Your task to perform on an android device: Add usb-c to the cart on amazon.com, then select checkout. Image 0: 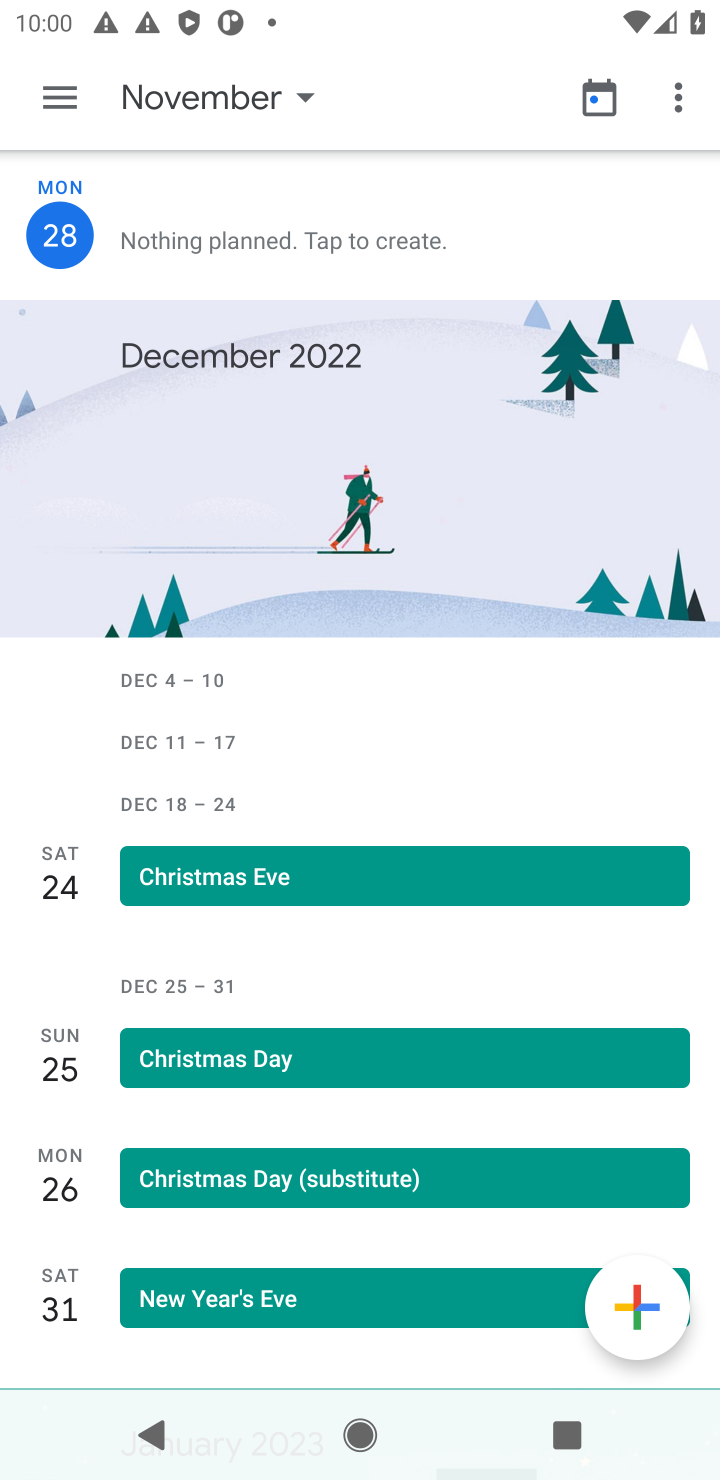
Step 0: press home button
Your task to perform on an android device: Add usb-c to the cart on amazon.com, then select checkout. Image 1: 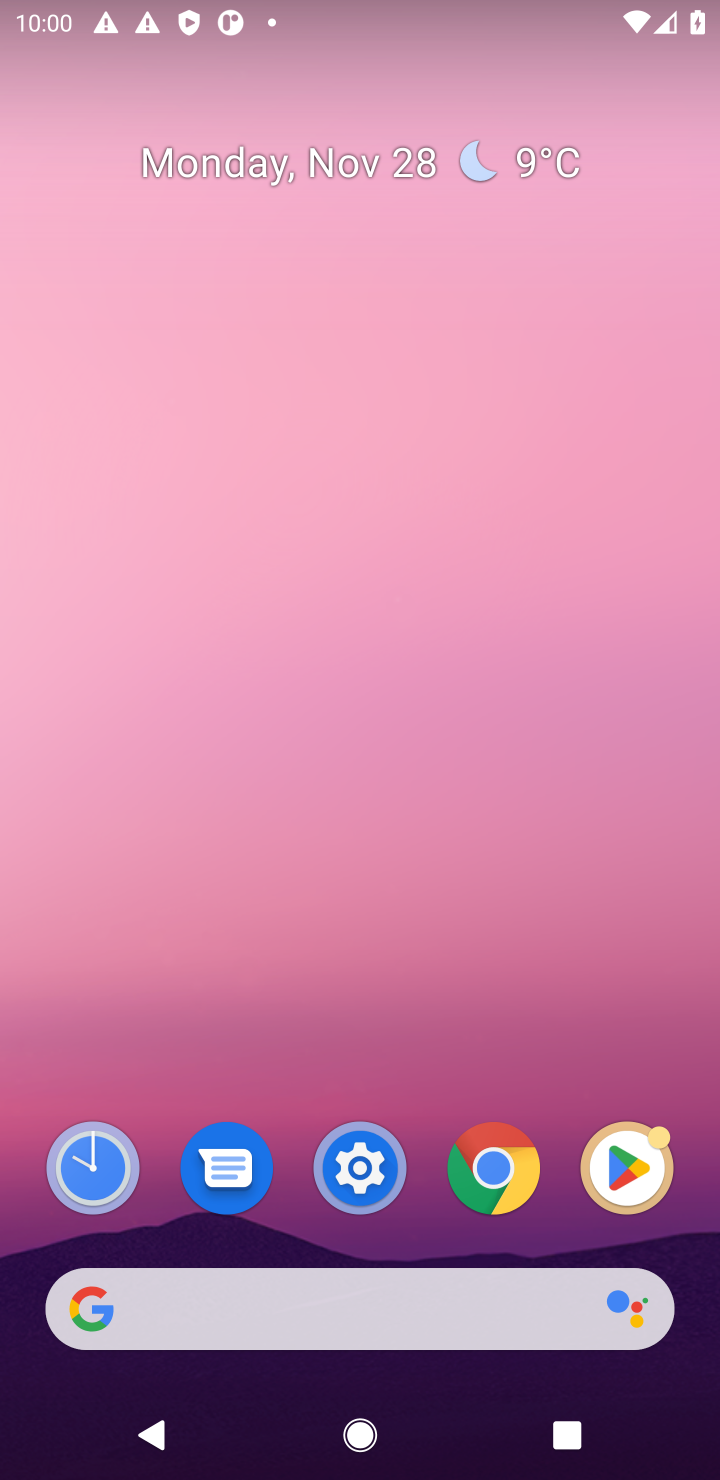
Step 1: click (276, 1288)
Your task to perform on an android device: Add usb-c to the cart on amazon.com, then select checkout. Image 2: 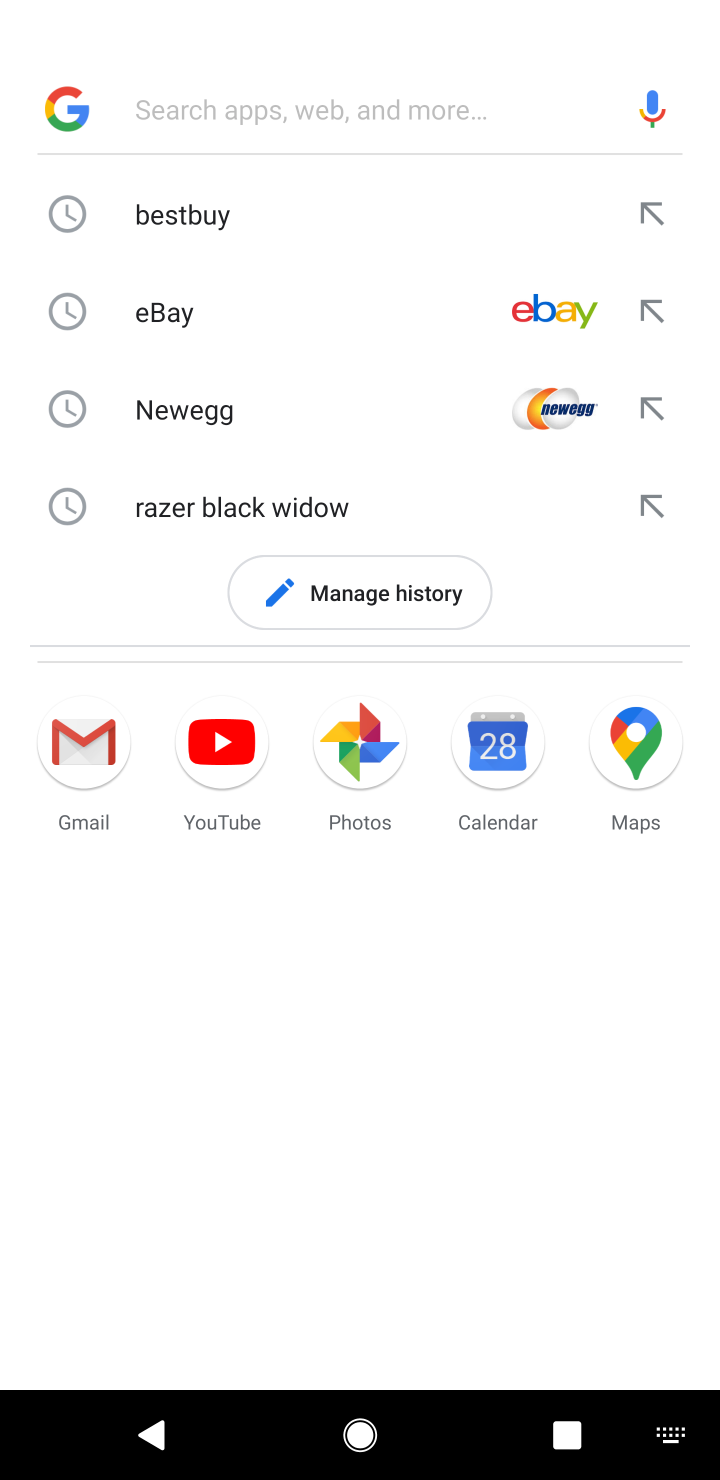
Step 2: type "amazon"
Your task to perform on an android device: Add usb-c to the cart on amazon.com, then select checkout. Image 3: 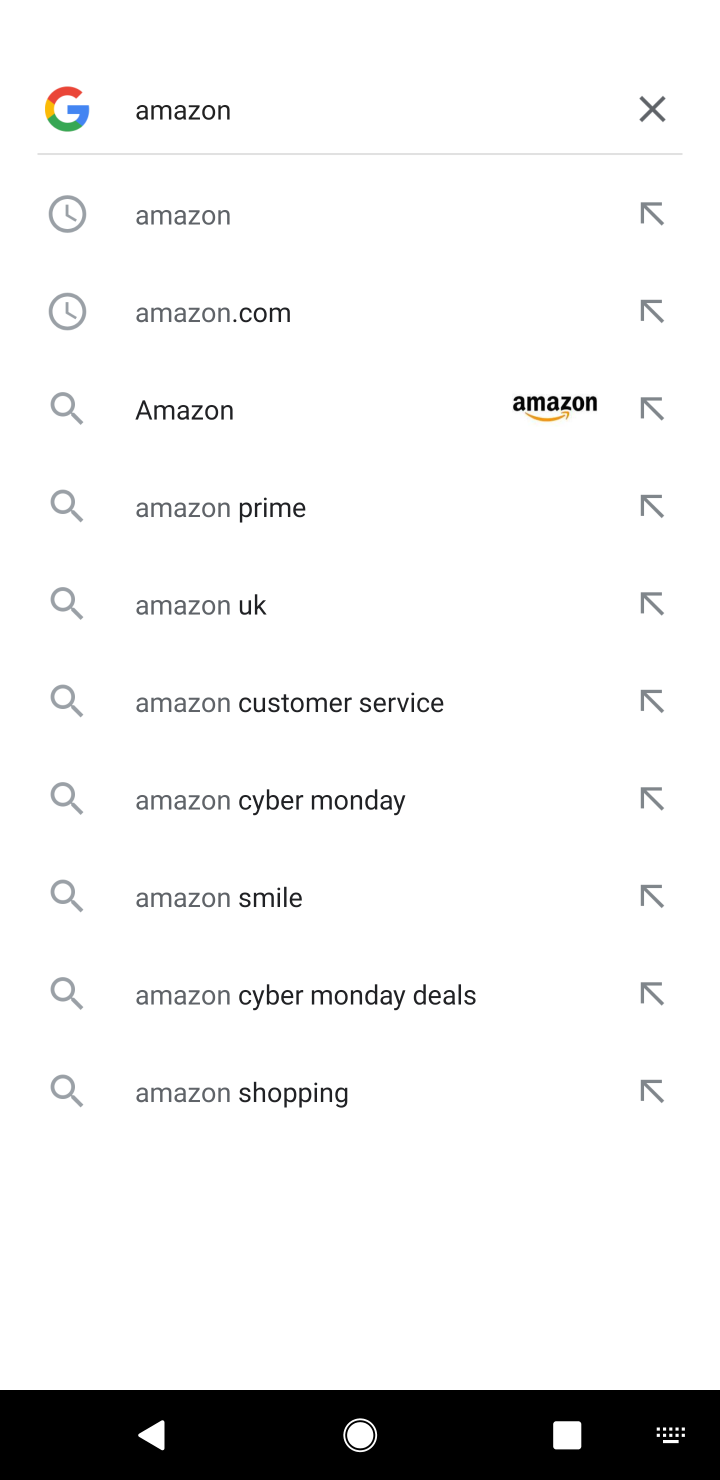
Step 3: click (165, 381)
Your task to perform on an android device: Add usb-c to the cart on amazon.com, then select checkout. Image 4: 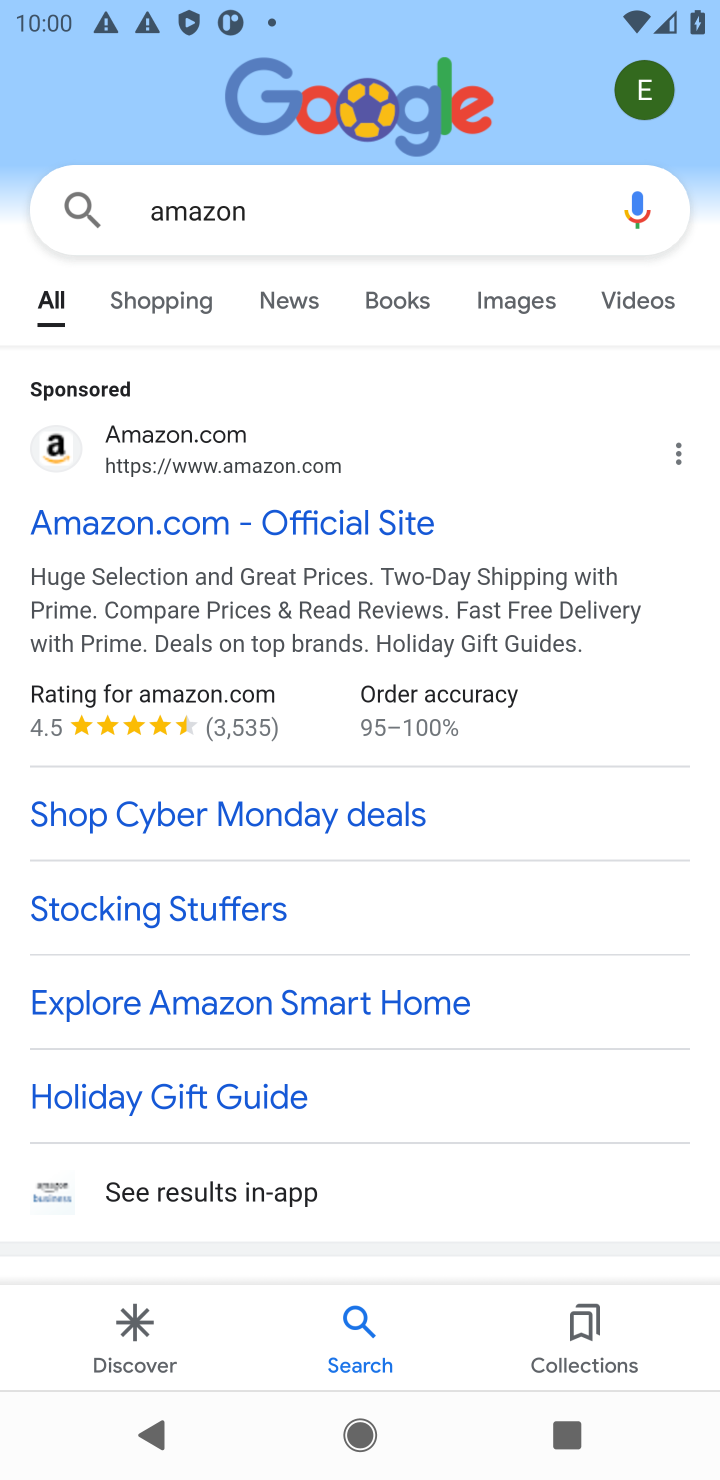
Step 4: click (63, 505)
Your task to perform on an android device: Add usb-c to the cart on amazon.com, then select checkout. Image 5: 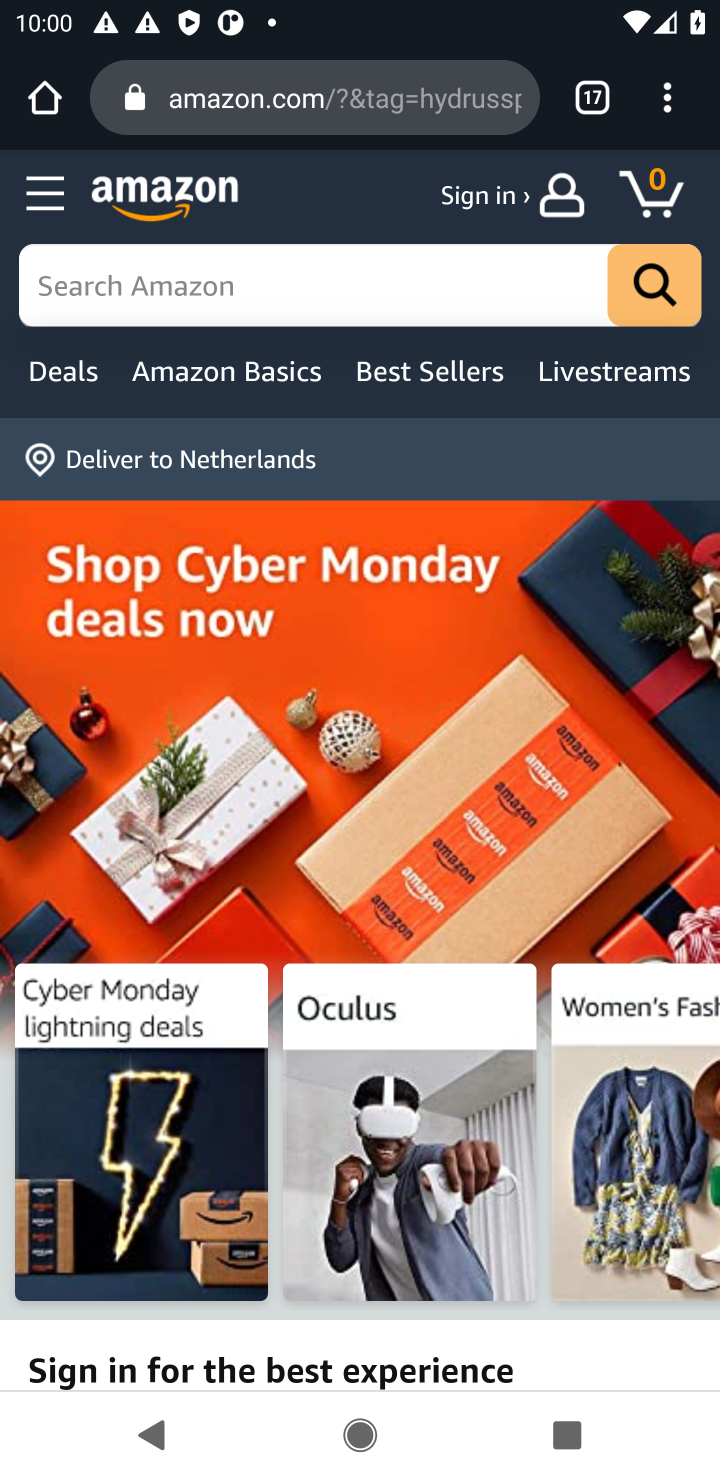
Step 5: click (239, 289)
Your task to perform on an android device: Add usb-c to the cart on amazon.com, then select checkout. Image 6: 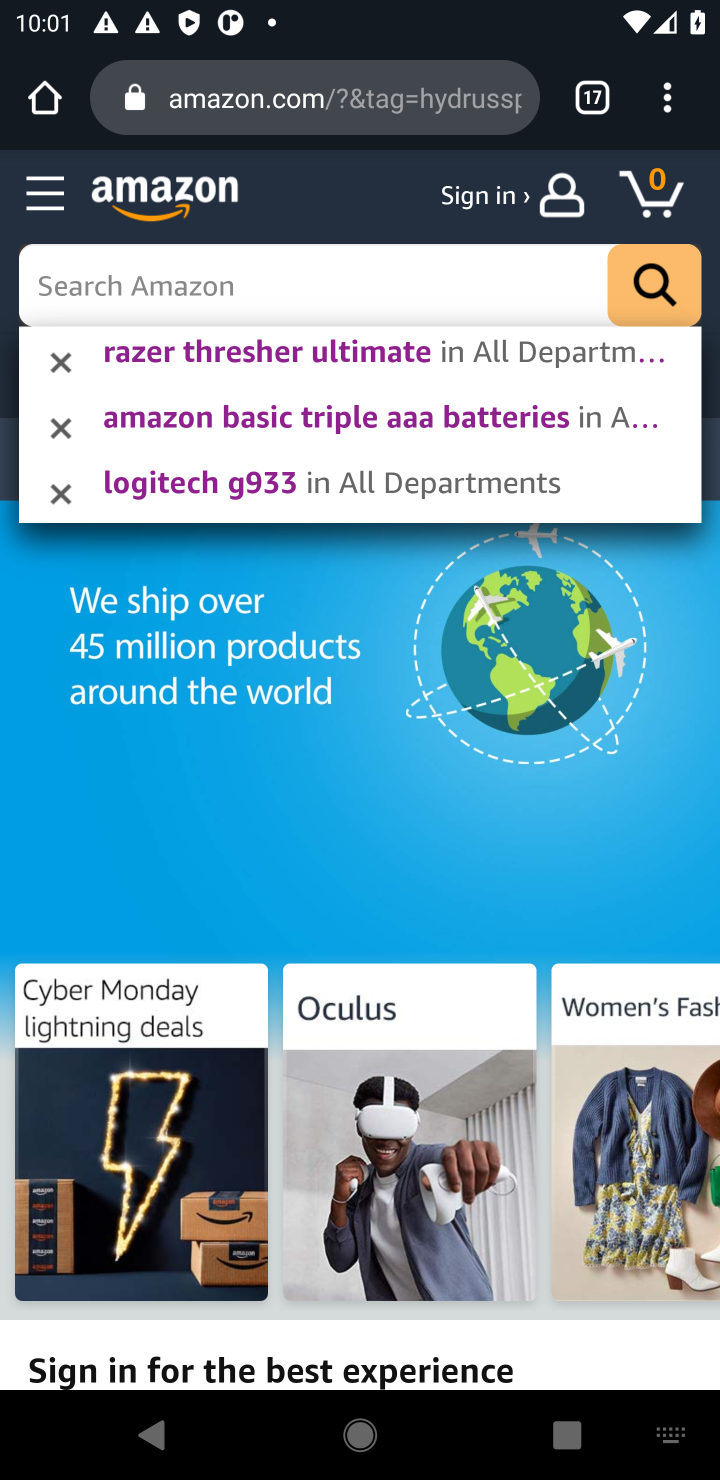
Step 6: type "usb- c"
Your task to perform on an android device: Add usb-c to the cart on amazon.com, then select checkout. Image 7: 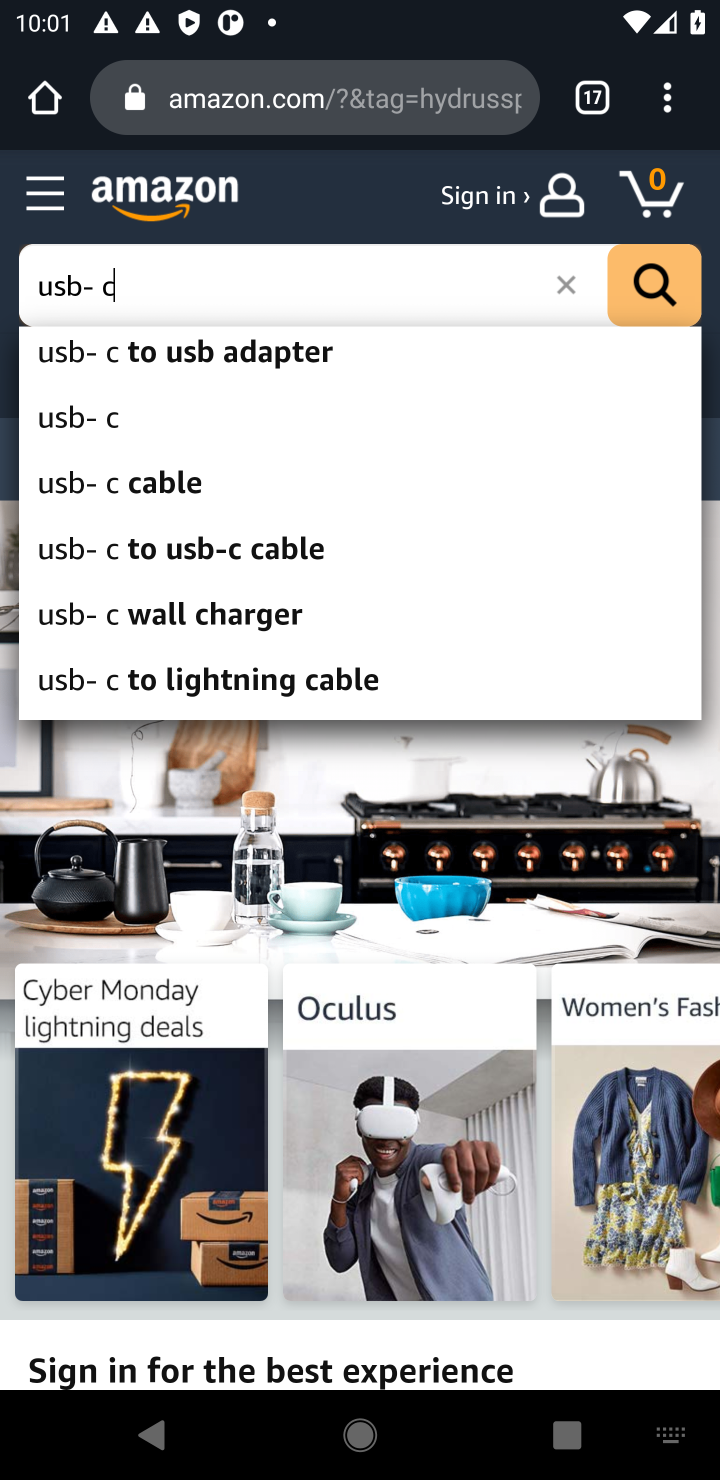
Step 7: click (155, 402)
Your task to perform on an android device: Add usb-c to the cart on amazon.com, then select checkout. Image 8: 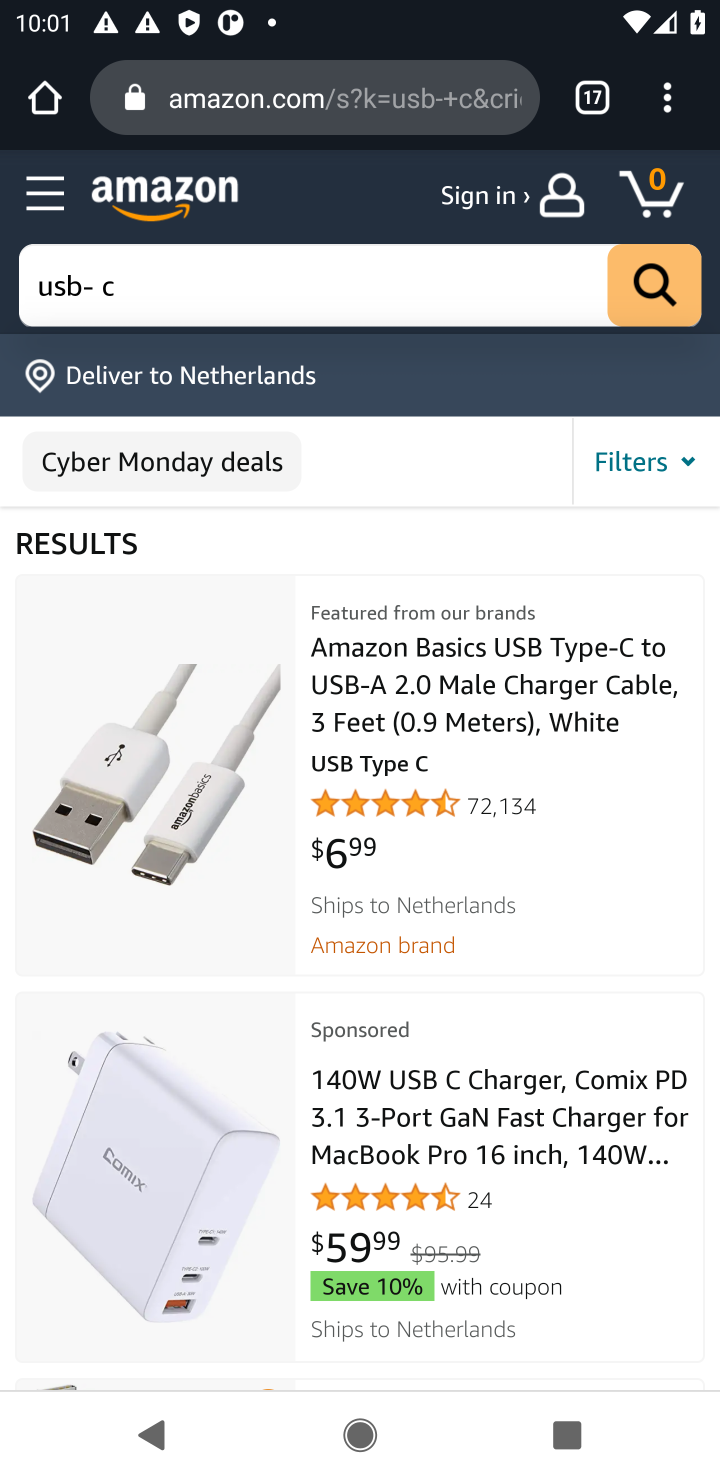
Step 8: click (432, 739)
Your task to perform on an android device: Add usb-c to the cart on amazon.com, then select checkout. Image 9: 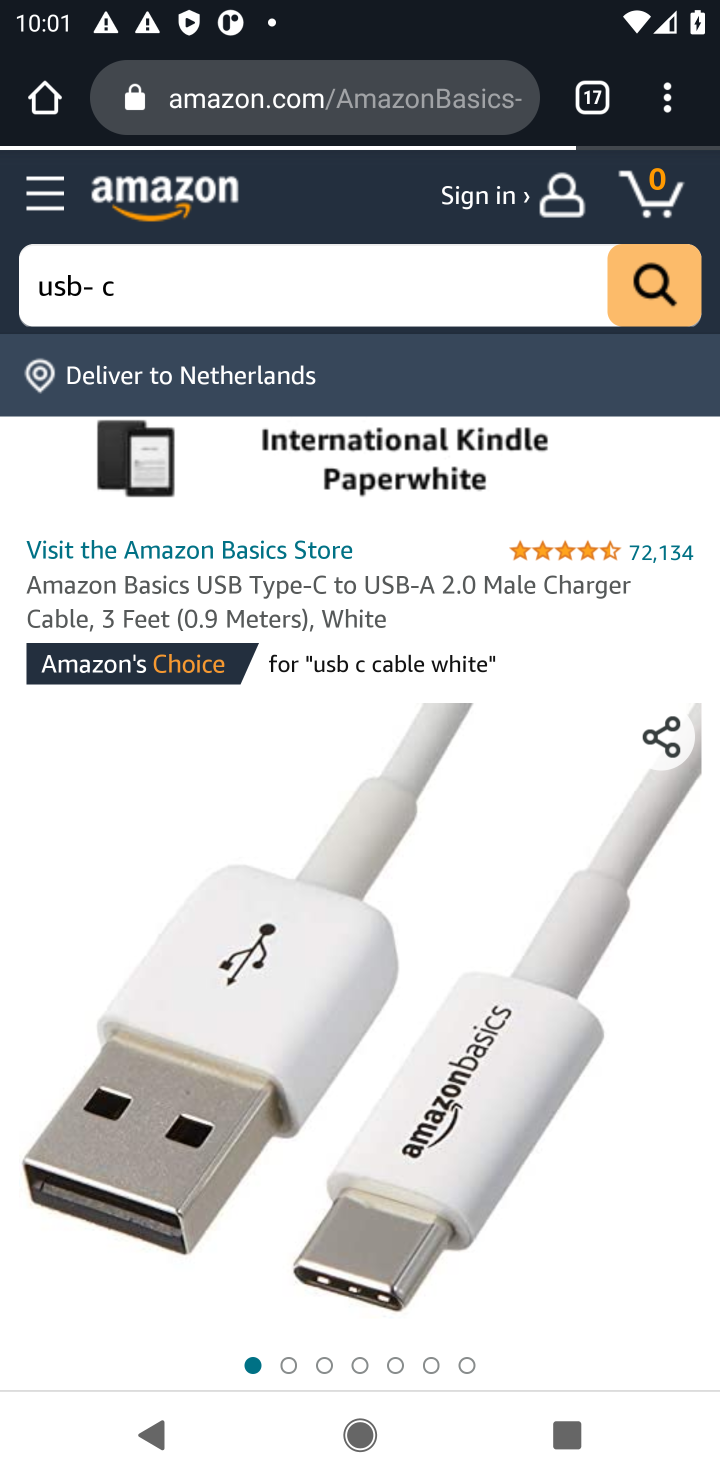
Step 9: task complete